Your task to perform on an android device: toggle wifi Image 0: 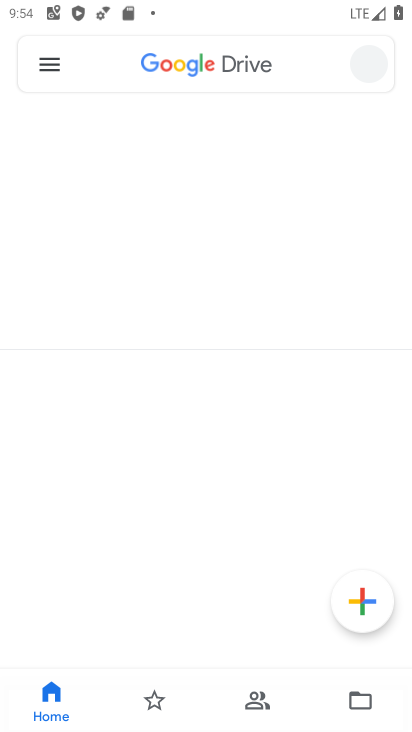
Step 0: drag from (265, 58) to (211, 418)
Your task to perform on an android device: toggle wifi Image 1: 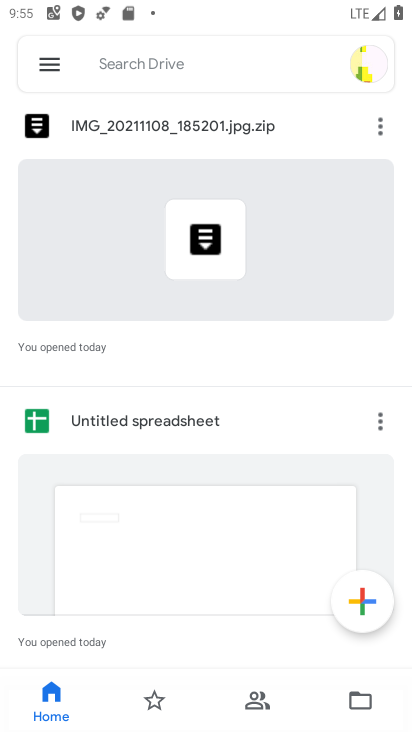
Step 1: drag from (222, 7) to (123, 599)
Your task to perform on an android device: toggle wifi Image 2: 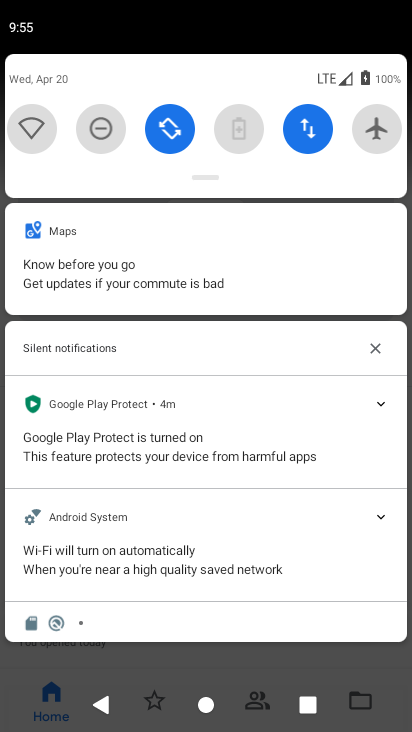
Step 2: click (39, 139)
Your task to perform on an android device: toggle wifi Image 3: 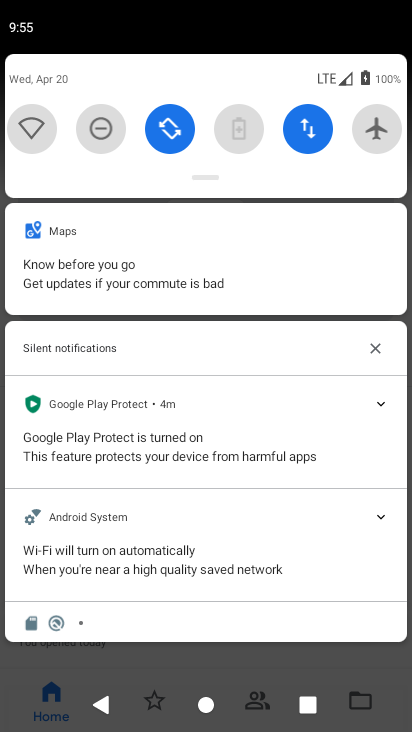
Step 3: click (39, 139)
Your task to perform on an android device: toggle wifi Image 4: 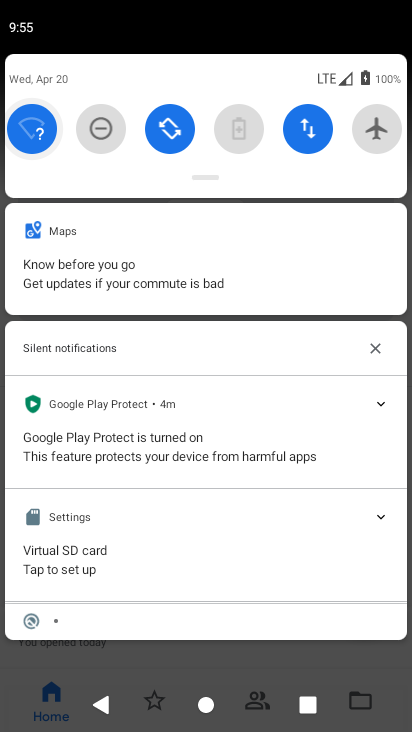
Step 4: click (39, 139)
Your task to perform on an android device: toggle wifi Image 5: 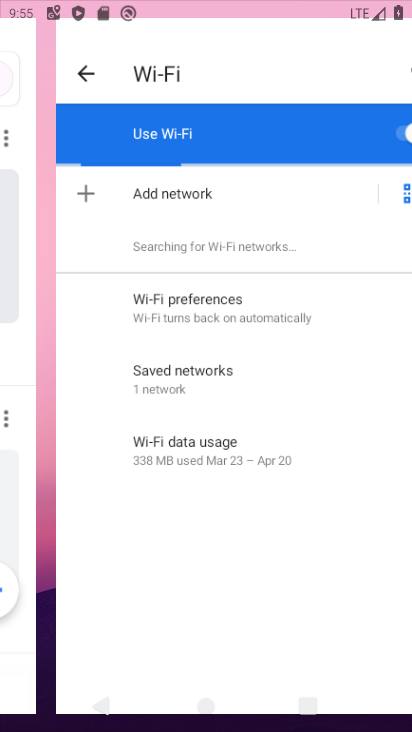
Step 5: click (39, 139)
Your task to perform on an android device: toggle wifi Image 6: 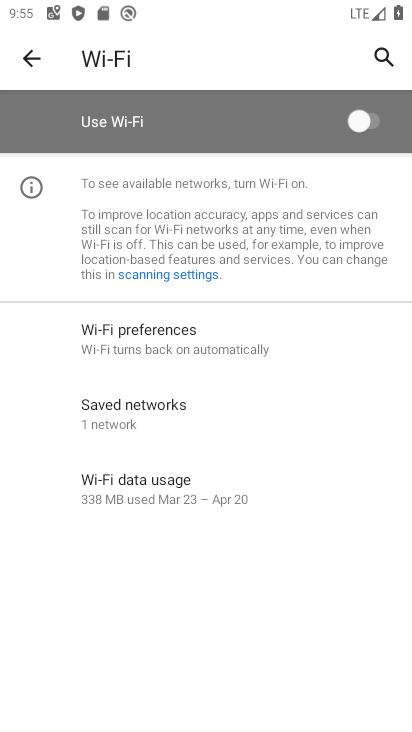
Step 6: click (377, 128)
Your task to perform on an android device: toggle wifi Image 7: 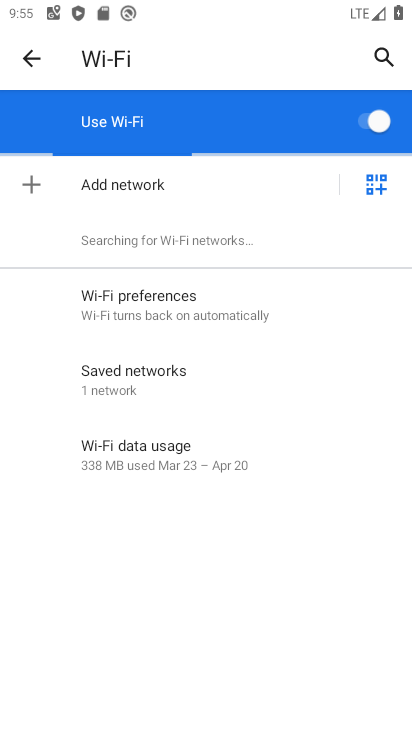
Step 7: click (377, 128)
Your task to perform on an android device: toggle wifi Image 8: 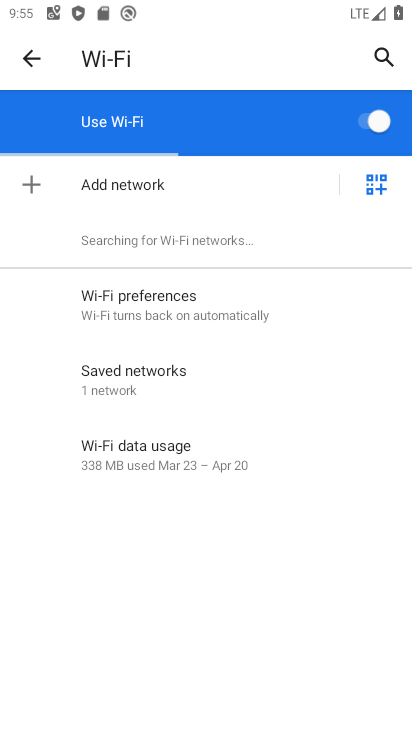
Step 8: click (377, 128)
Your task to perform on an android device: toggle wifi Image 9: 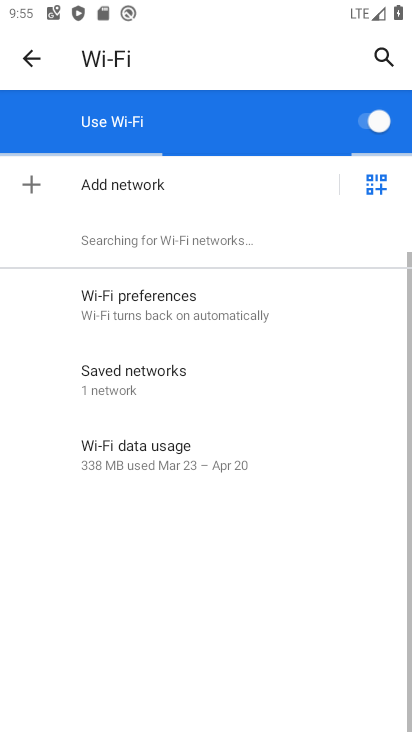
Step 9: click (377, 128)
Your task to perform on an android device: toggle wifi Image 10: 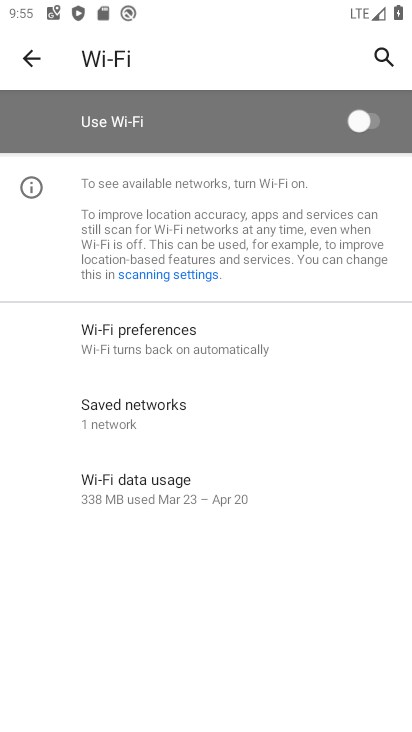
Step 10: task complete